Your task to perform on an android device: What's the weather today? Image 0: 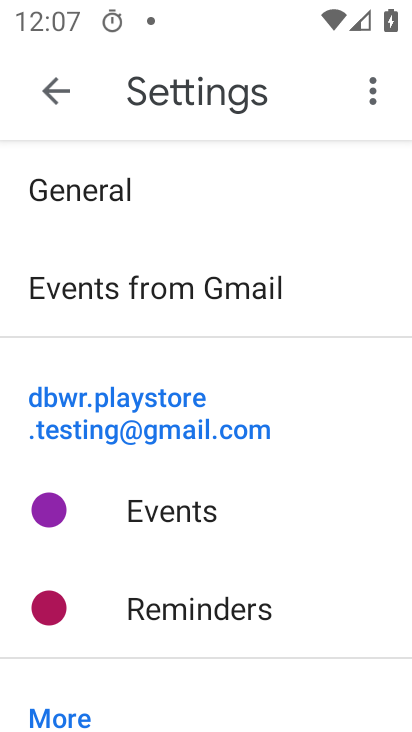
Step 0: press home button
Your task to perform on an android device: What's the weather today? Image 1: 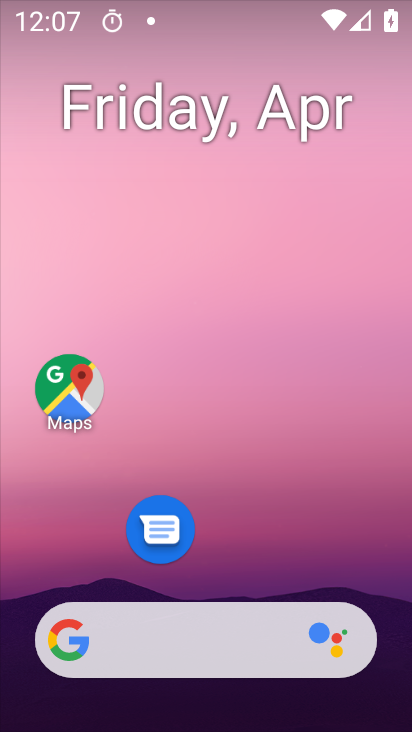
Step 1: click (214, 635)
Your task to perform on an android device: What's the weather today? Image 2: 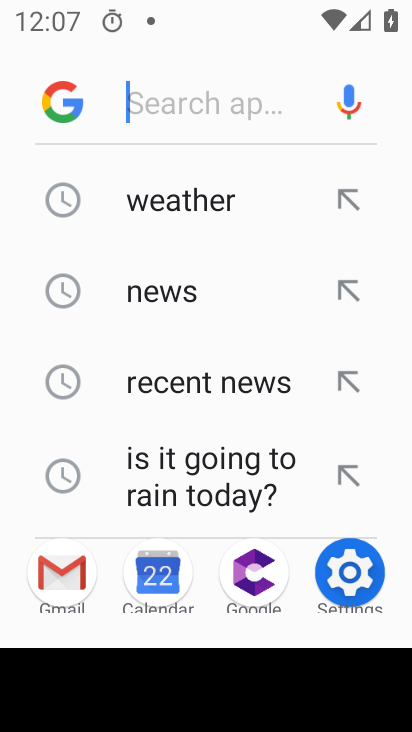
Step 2: click (168, 193)
Your task to perform on an android device: What's the weather today? Image 3: 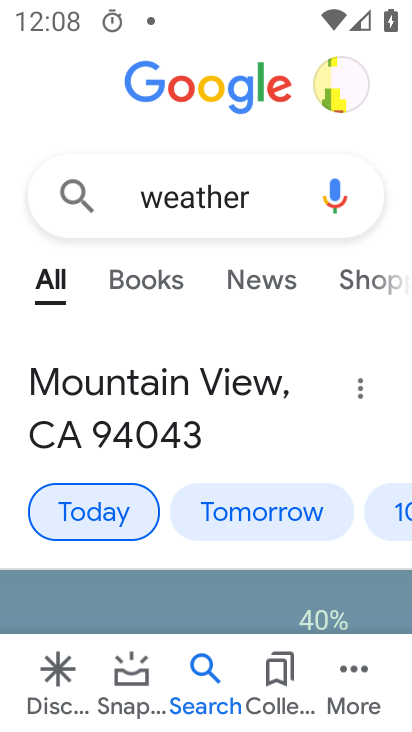
Step 3: task complete